Your task to perform on an android device: Go to notification settings Image 0: 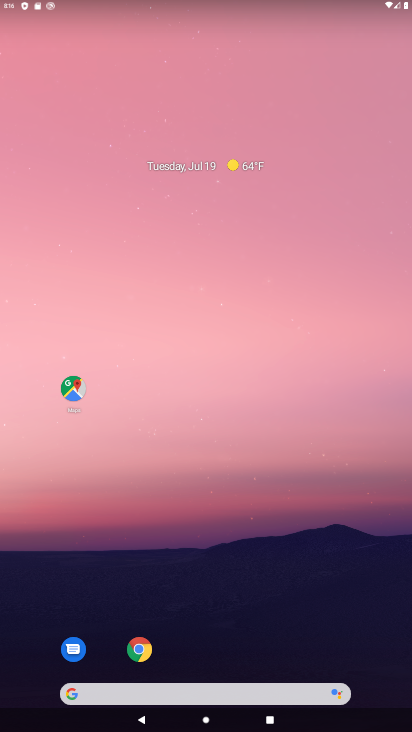
Step 0: drag from (193, 638) to (212, 185)
Your task to perform on an android device: Go to notification settings Image 1: 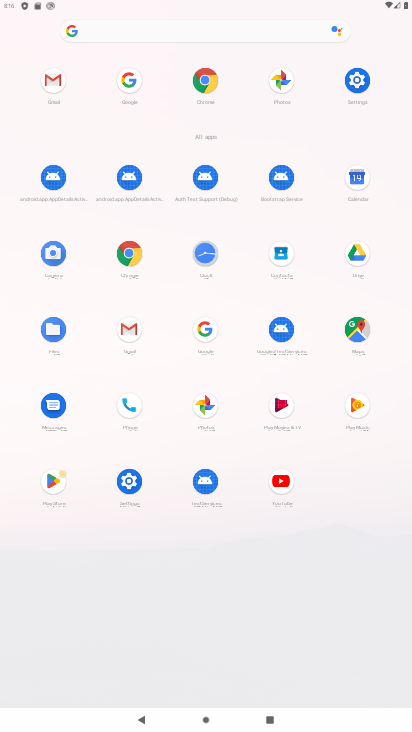
Step 1: click (360, 90)
Your task to perform on an android device: Go to notification settings Image 2: 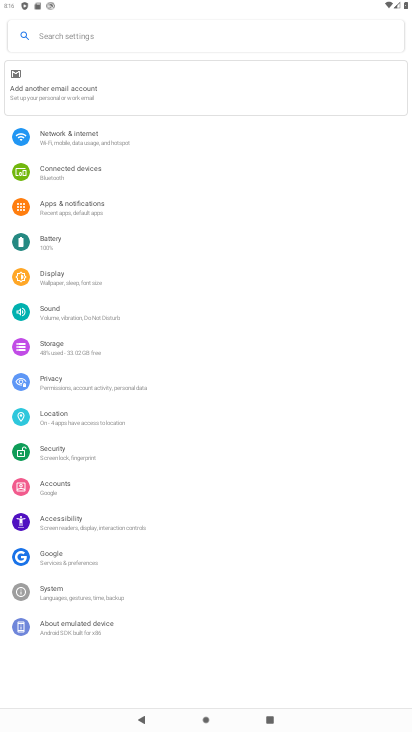
Step 2: click (131, 206)
Your task to perform on an android device: Go to notification settings Image 3: 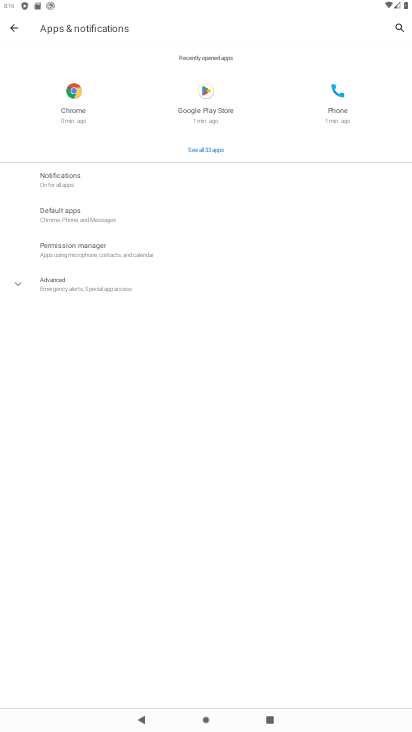
Step 3: click (113, 175)
Your task to perform on an android device: Go to notification settings Image 4: 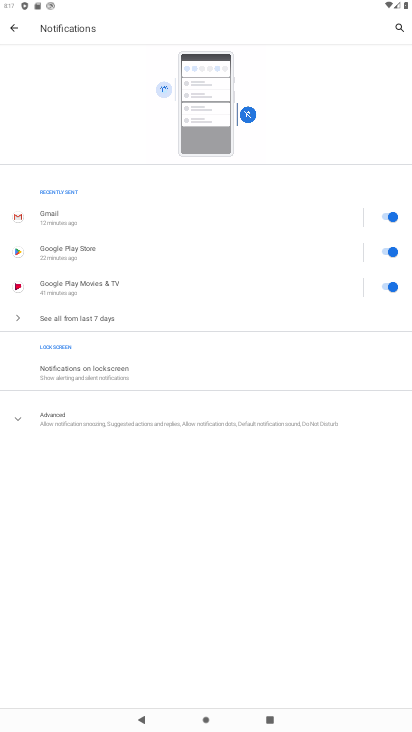
Step 4: task complete